Your task to perform on an android device: Open the stopwatch Image 0: 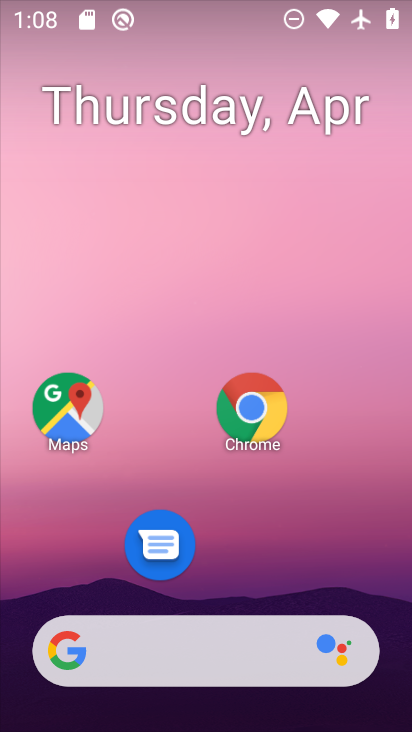
Step 0: drag from (317, 559) to (356, 157)
Your task to perform on an android device: Open the stopwatch Image 1: 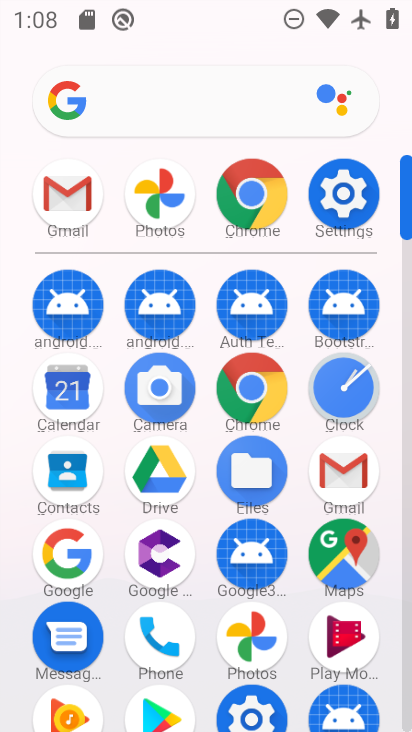
Step 1: click (340, 399)
Your task to perform on an android device: Open the stopwatch Image 2: 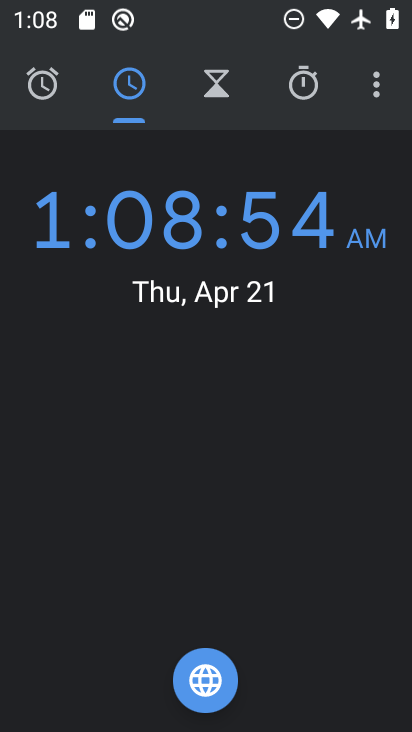
Step 2: click (311, 86)
Your task to perform on an android device: Open the stopwatch Image 3: 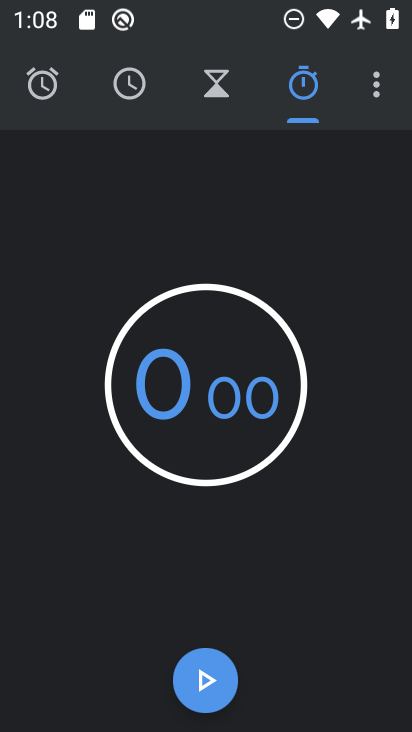
Step 3: task complete